Your task to perform on an android device: Search for seafood restaurants on Google Maps Image 0: 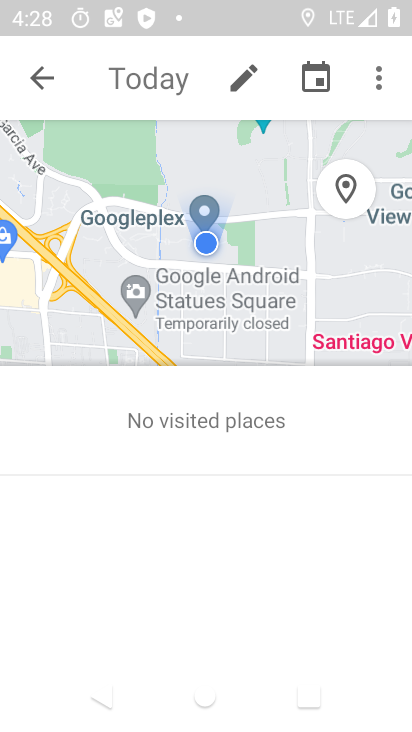
Step 0: click (53, 80)
Your task to perform on an android device: Search for seafood restaurants on Google Maps Image 1: 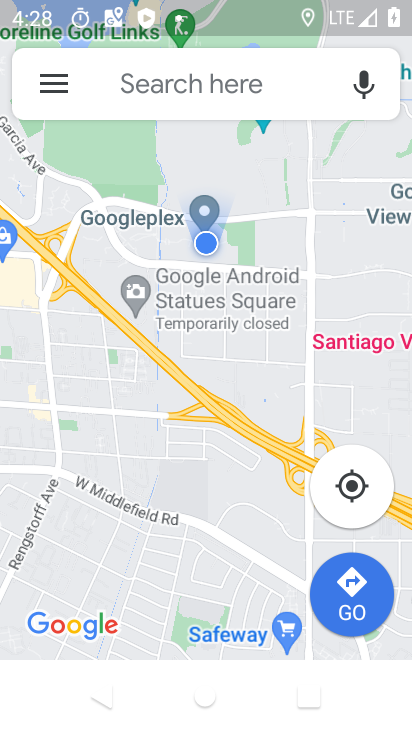
Step 1: click (161, 93)
Your task to perform on an android device: Search for seafood restaurants on Google Maps Image 2: 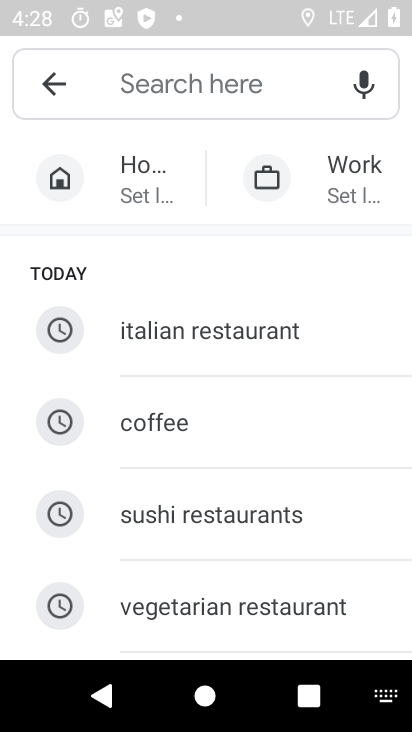
Step 2: type "seafood restaurant"
Your task to perform on an android device: Search for seafood restaurants on Google Maps Image 3: 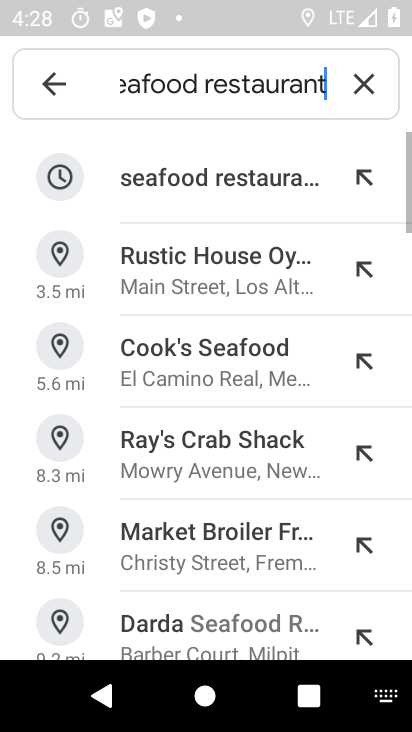
Step 3: click (246, 179)
Your task to perform on an android device: Search for seafood restaurants on Google Maps Image 4: 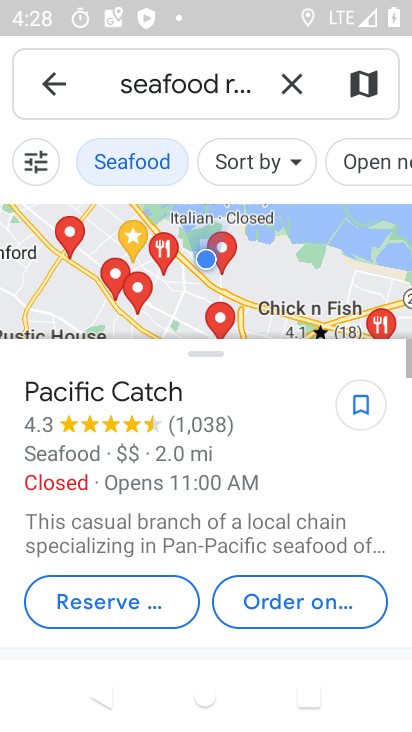
Step 4: task complete